Your task to perform on an android device: turn off translation in the chrome app Image 0: 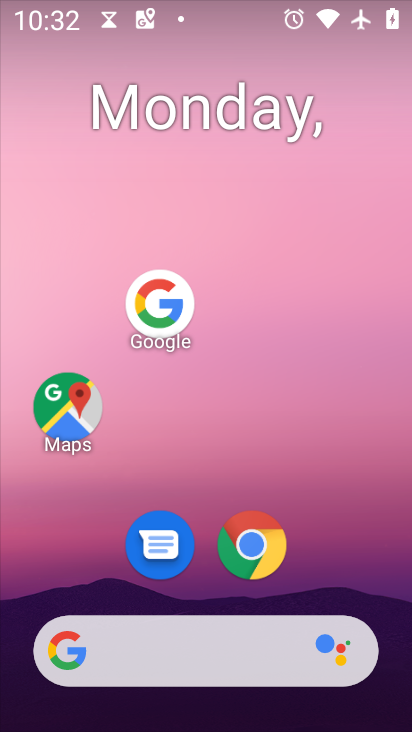
Step 0: press home button
Your task to perform on an android device: turn off translation in the chrome app Image 1: 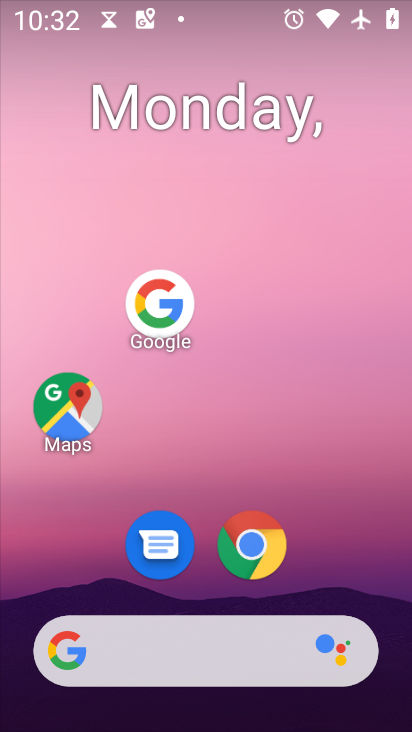
Step 1: click (267, 539)
Your task to perform on an android device: turn off translation in the chrome app Image 2: 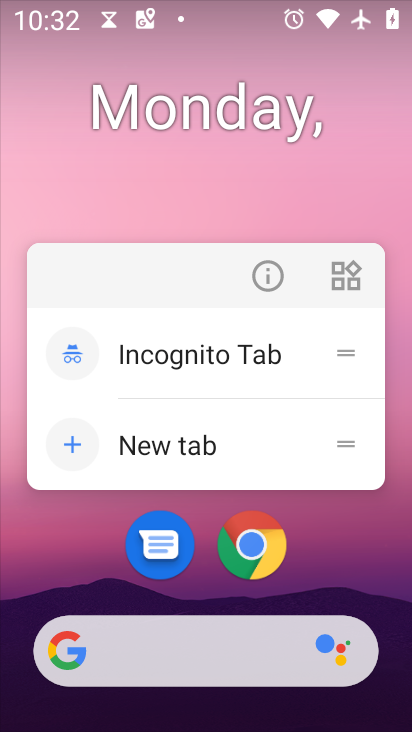
Step 2: click (251, 548)
Your task to perform on an android device: turn off translation in the chrome app Image 3: 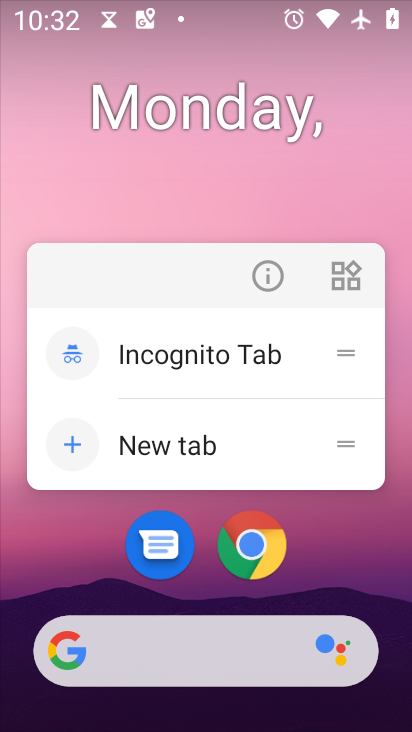
Step 3: click (244, 562)
Your task to perform on an android device: turn off translation in the chrome app Image 4: 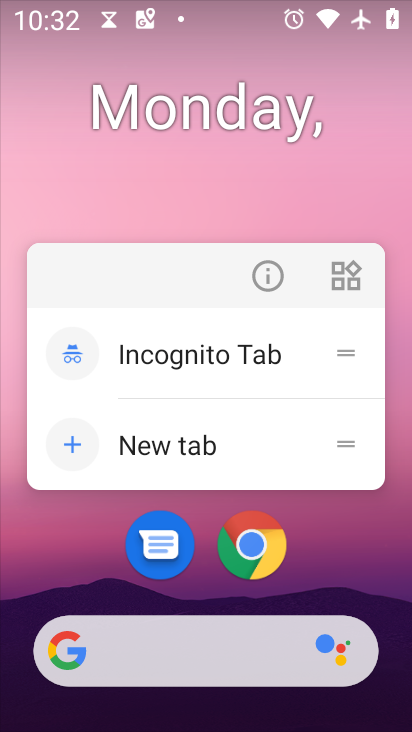
Step 4: click (247, 561)
Your task to perform on an android device: turn off translation in the chrome app Image 5: 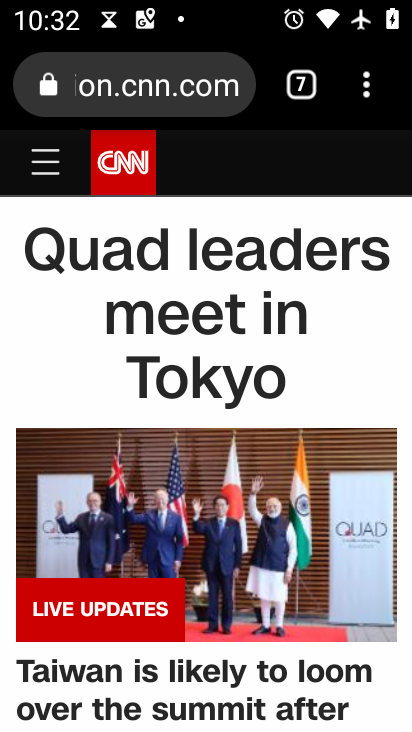
Step 5: drag from (363, 91) to (212, 597)
Your task to perform on an android device: turn off translation in the chrome app Image 6: 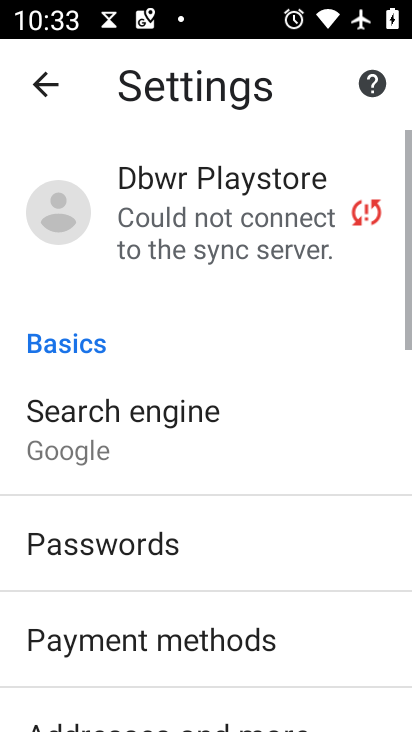
Step 6: drag from (193, 679) to (340, 115)
Your task to perform on an android device: turn off translation in the chrome app Image 7: 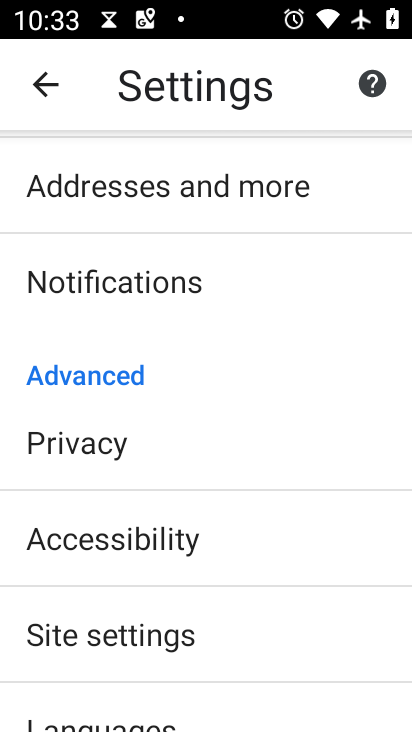
Step 7: drag from (174, 665) to (253, 388)
Your task to perform on an android device: turn off translation in the chrome app Image 8: 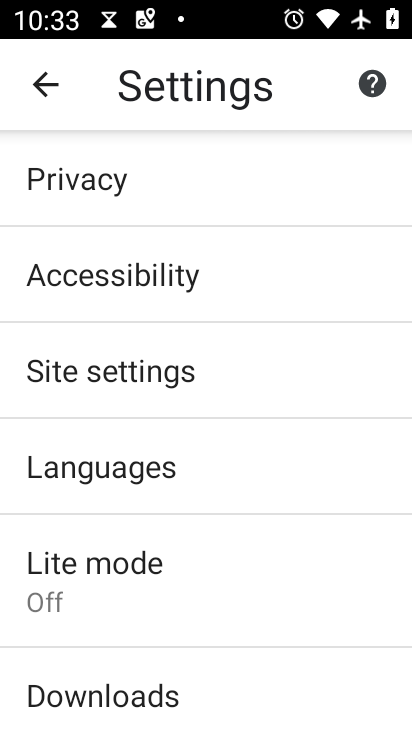
Step 8: click (148, 458)
Your task to perform on an android device: turn off translation in the chrome app Image 9: 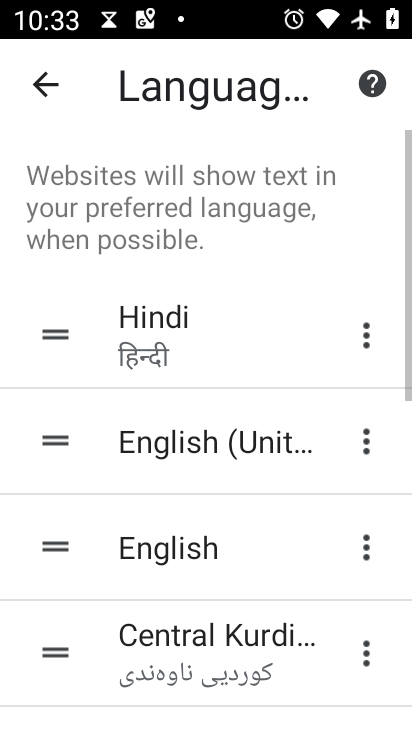
Step 9: drag from (190, 692) to (316, 354)
Your task to perform on an android device: turn off translation in the chrome app Image 10: 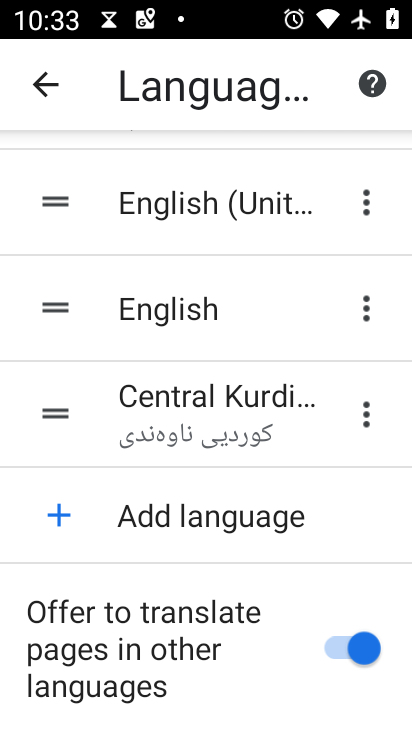
Step 10: click (333, 652)
Your task to perform on an android device: turn off translation in the chrome app Image 11: 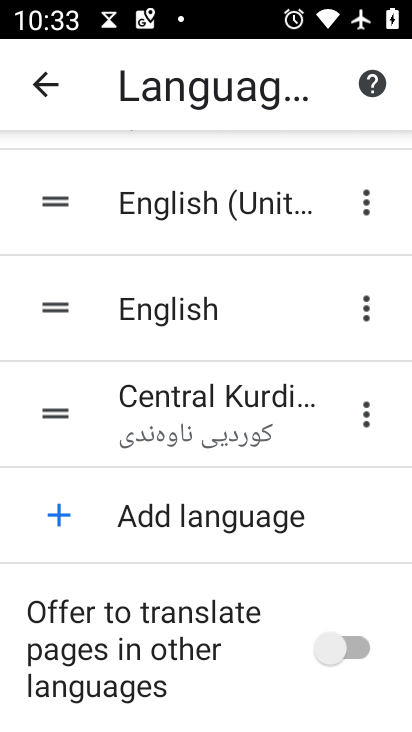
Step 11: task complete